Your task to perform on an android device: Open Maps and search for coffee Image 0: 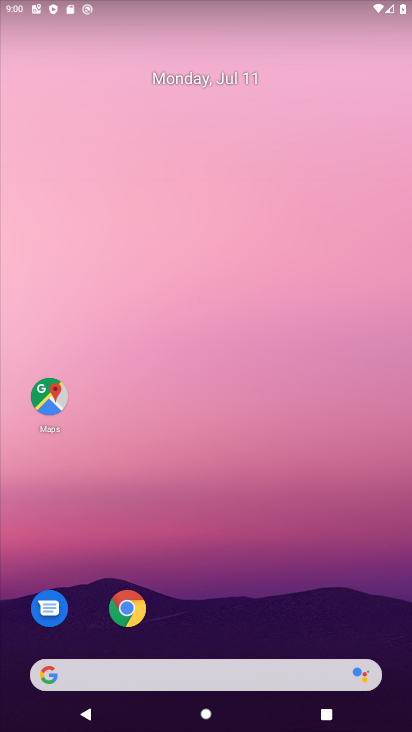
Step 0: click (49, 396)
Your task to perform on an android device: Open Maps and search for coffee Image 1: 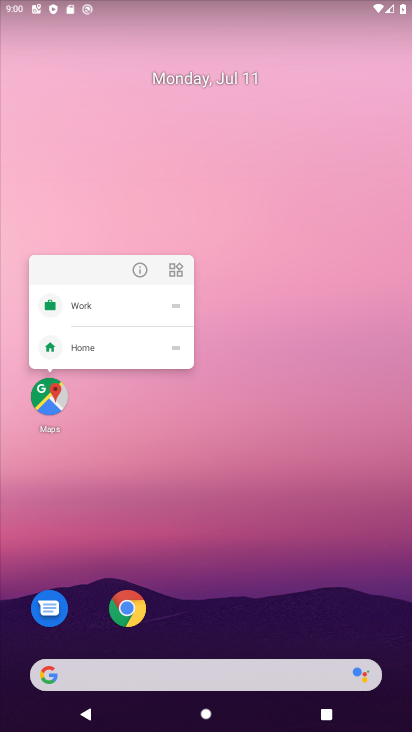
Step 1: click (49, 396)
Your task to perform on an android device: Open Maps and search for coffee Image 2: 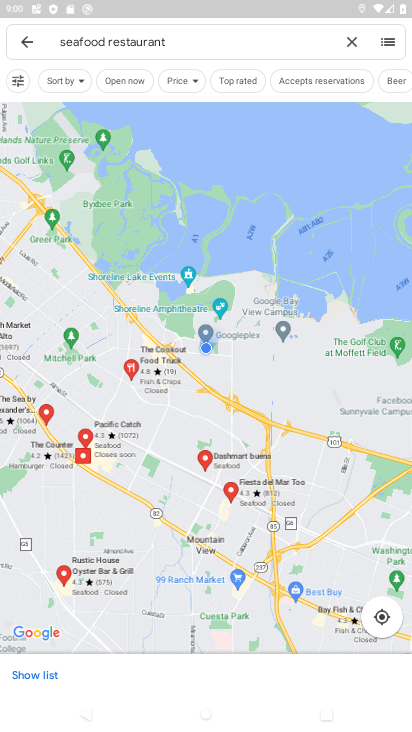
Step 2: click (353, 44)
Your task to perform on an android device: Open Maps and search for coffee Image 3: 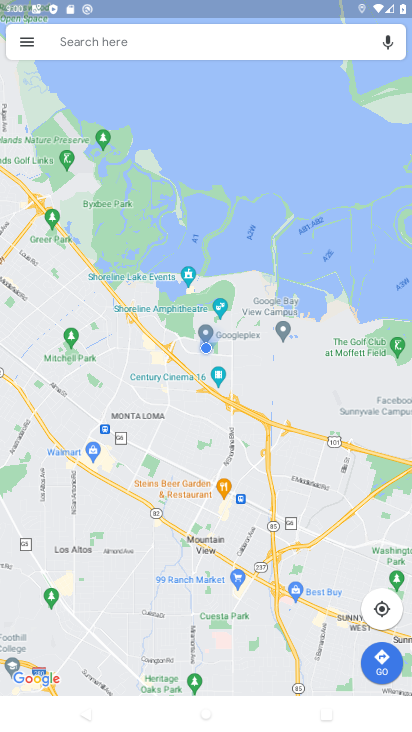
Step 3: click (205, 42)
Your task to perform on an android device: Open Maps and search for coffee Image 4: 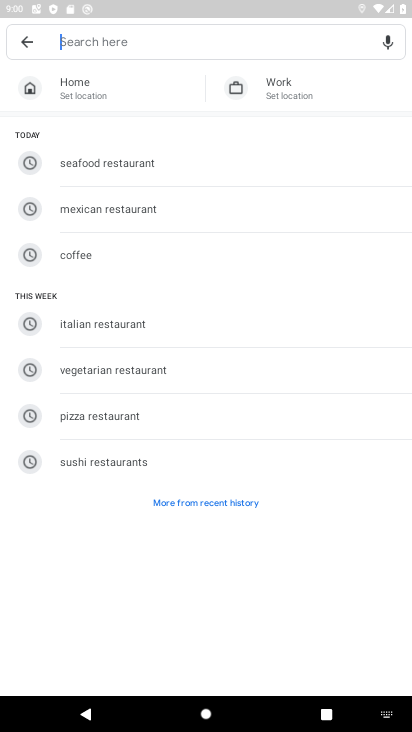
Step 4: type "coffee"
Your task to perform on an android device: Open Maps and search for coffee Image 5: 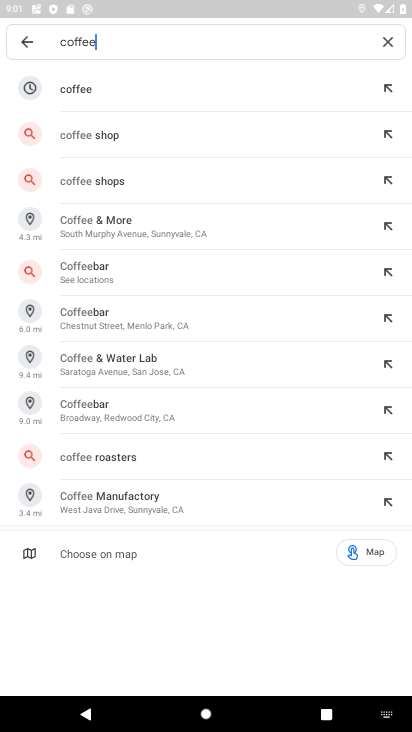
Step 5: click (105, 85)
Your task to perform on an android device: Open Maps and search for coffee Image 6: 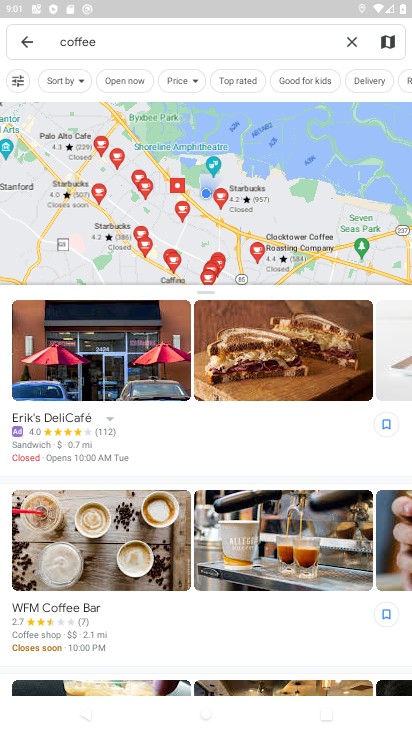
Step 6: task complete